Your task to perform on an android device: toggle wifi Image 0: 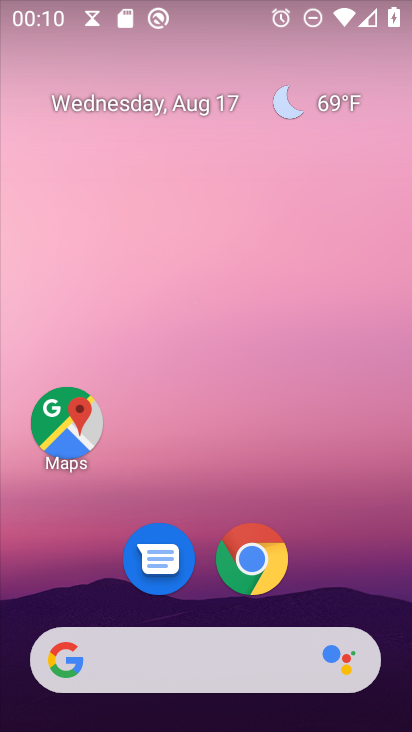
Step 0: drag from (197, 690) to (211, 112)
Your task to perform on an android device: toggle wifi Image 1: 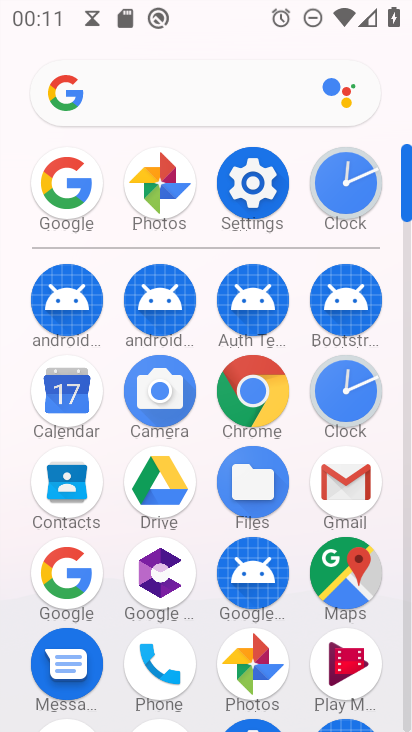
Step 1: click (250, 185)
Your task to perform on an android device: toggle wifi Image 2: 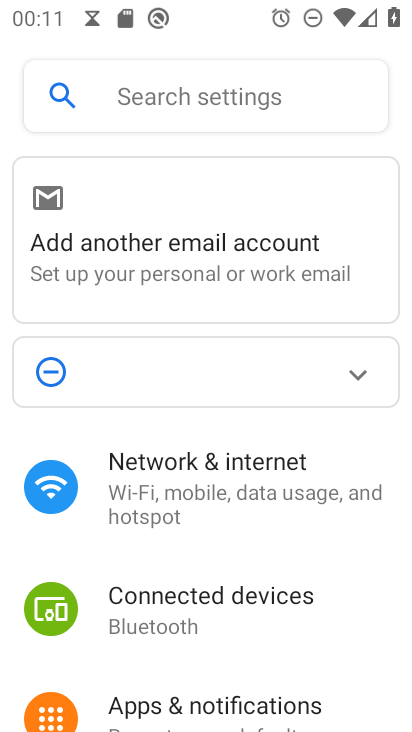
Step 2: click (239, 475)
Your task to perform on an android device: toggle wifi Image 3: 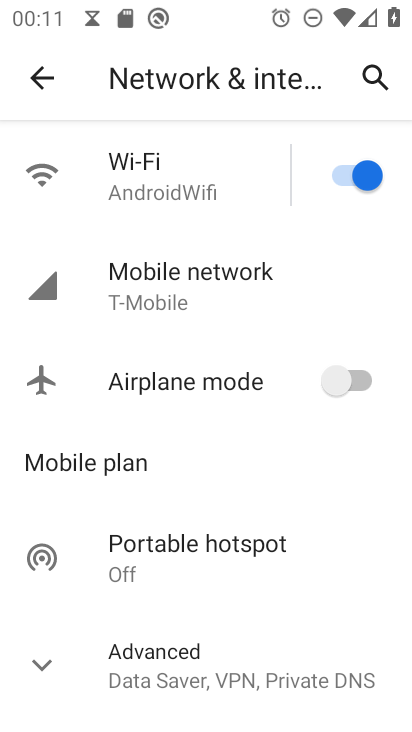
Step 3: click (351, 184)
Your task to perform on an android device: toggle wifi Image 4: 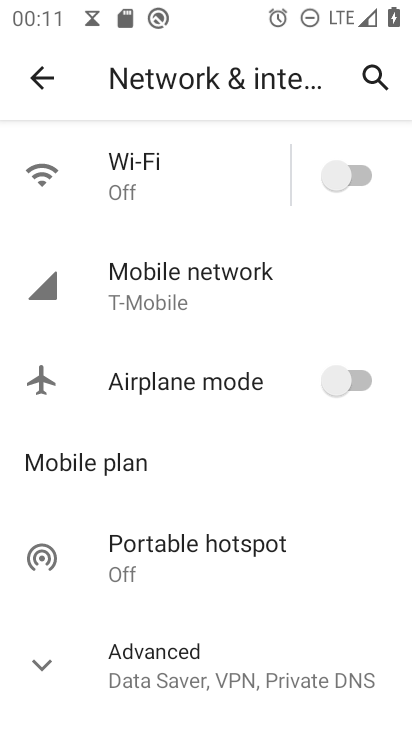
Step 4: task complete